Your task to perform on an android device: add a label to a message in the gmail app Image 0: 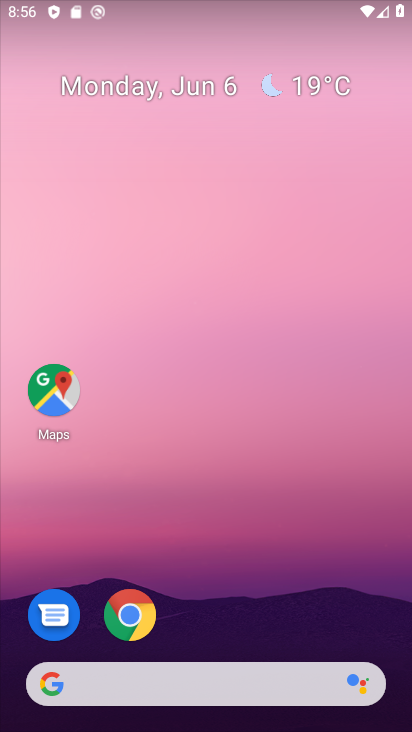
Step 0: task complete